Your task to perform on an android device: turn off notifications settings in the gmail app Image 0: 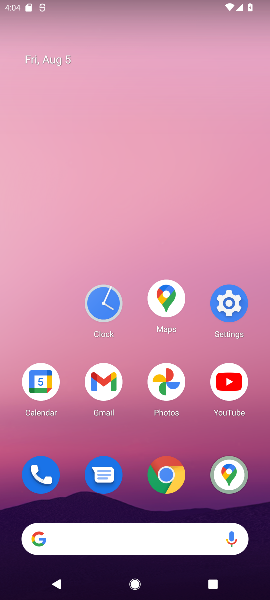
Step 0: click (118, 380)
Your task to perform on an android device: turn off notifications settings in the gmail app Image 1: 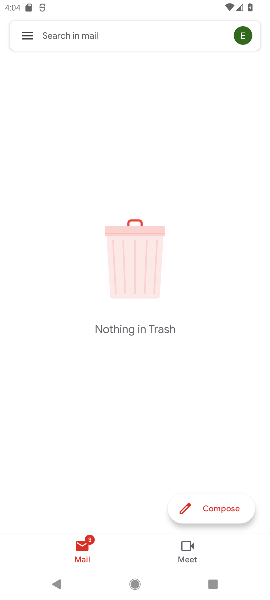
Step 1: click (21, 32)
Your task to perform on an android device: turn off notifications settings in the gmail app Image 2: 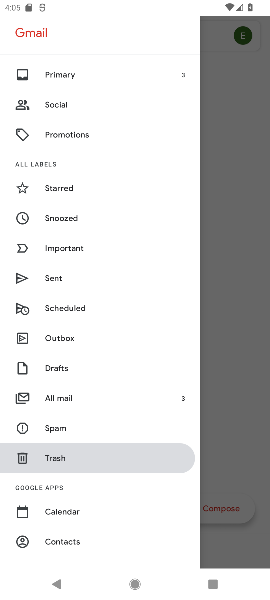
Step 2: drag from (121, 510) to (115, 309)
Your task to perform on an android device: turn off notifications settings in the gmail app Image 3: 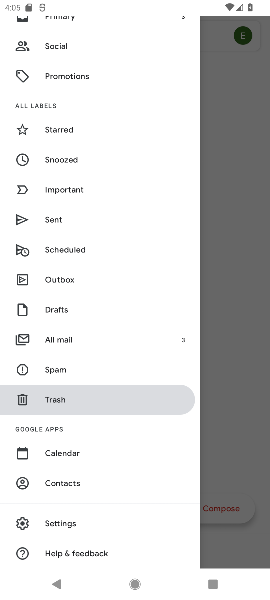
Step 3: click (55, 518)
Your task to perform on an android device: turn off notifications settings in the gmail app Image 4: 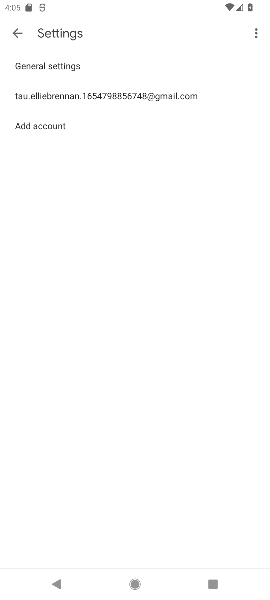
Step 4: click (92, 96)
Your task to perform on an android device: turn off notifications settings in the gmail app Image 5: 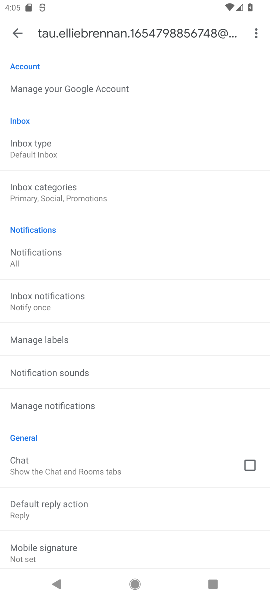
Step 5: click (33, 256)
Your task to perform on an android device: turn off notifications settings in the gmail app Image 6: 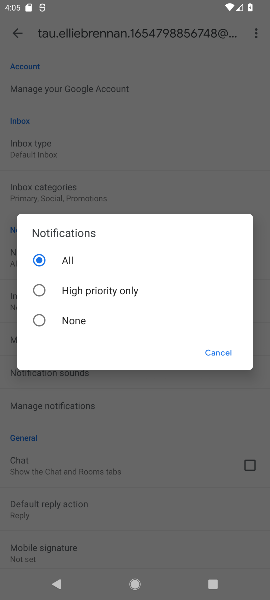
Step 6: click (35, 319)
Your task to perform on an android device: turn off notifications settings in the gmail app Image 7: 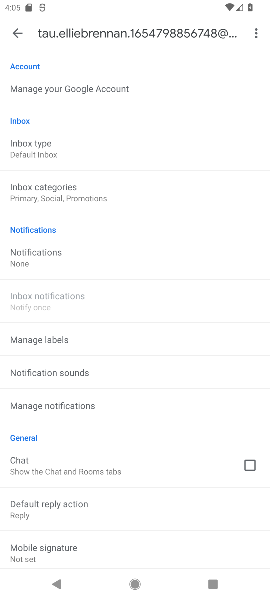
Step 7: click (38, 260)
Your task to perform on an android device: turn off notifications settings in the gmail app Image 8: 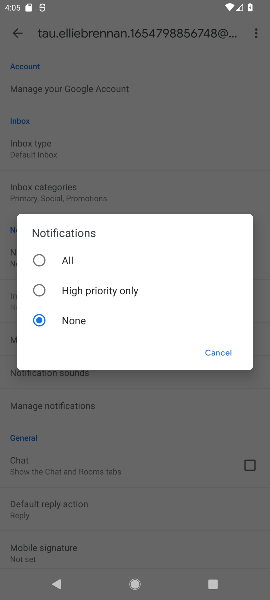
Step 8: task complete